Your task to perform on an android device: change the clock display to analog Image 0: 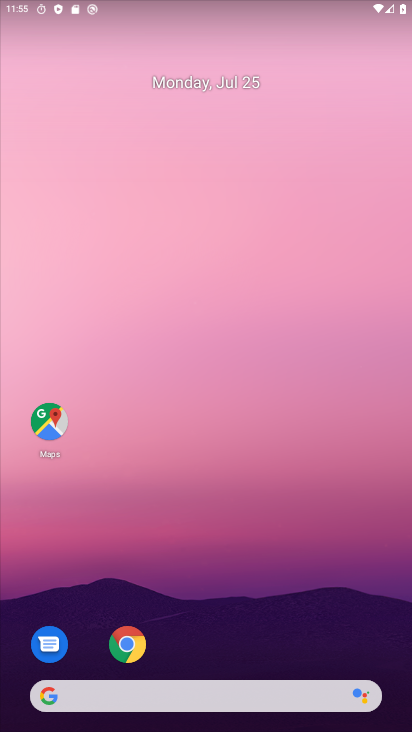
Step 0: drag from (195, 610) to (394, 16)
Your task to perform on an android device: change the clock display to analog Image 1: 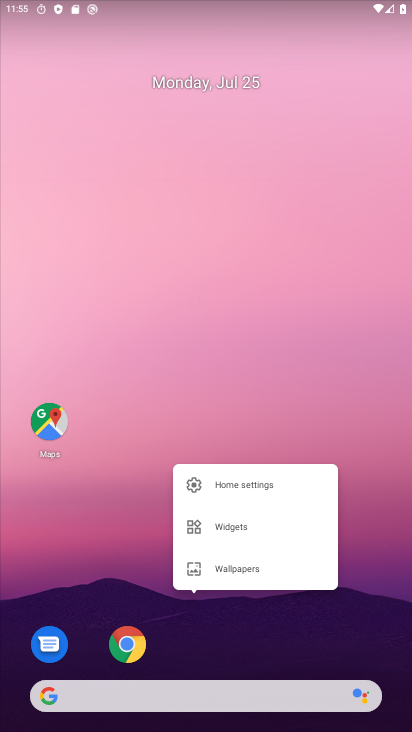
Step 1: click (228, 341)
Your task to perform on an android device: change the clock display to analog Image 2: 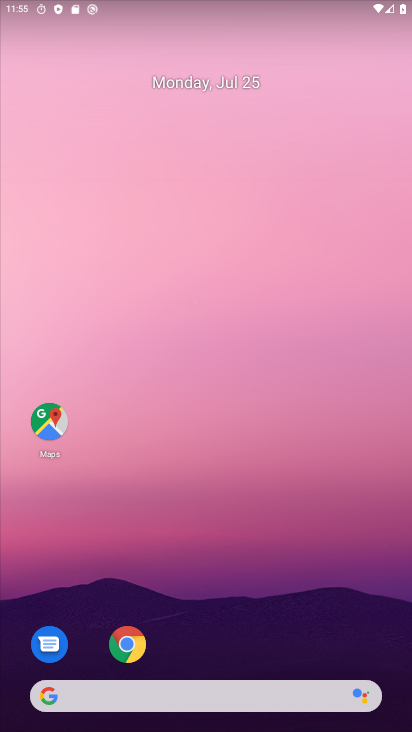
Step 2: drag from (226, 656) to (343, 10)
Your task to perform on an android device: change the clock display to analog Image 3: 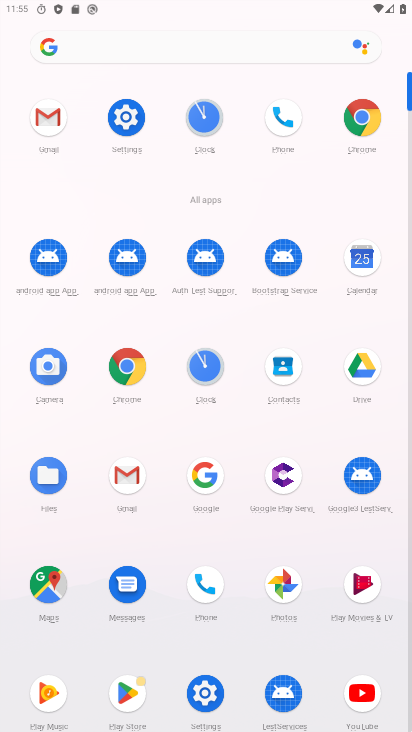
Step 3: click (198, 122)
Your task to perform on an android device: change the clock display to analog Image 4: 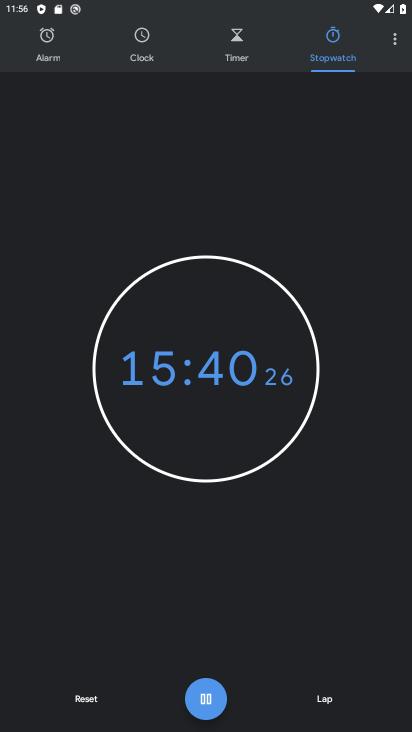
Step 4: click (397, 35)
Your task to perform on an android device: change the clock display to analog Image 5: 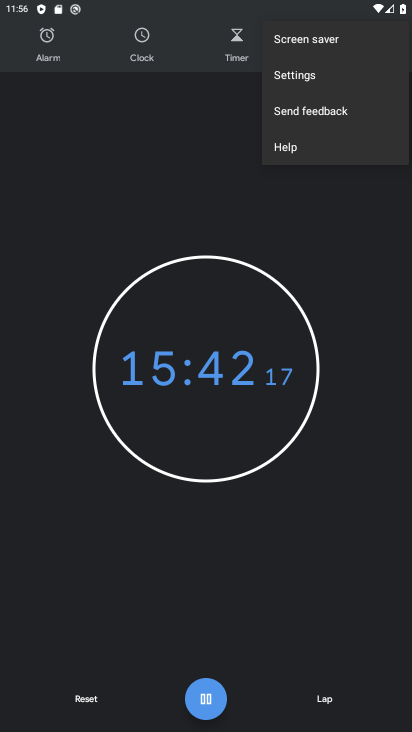
Step 5: click (293, 84)
Your task to perform on an android device: change the clock display to analog Image 6: 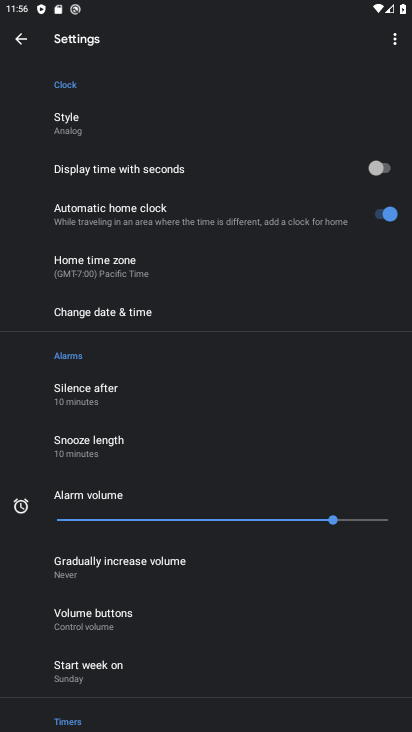
Step 6: task complete